Your task to perform on an android device: Open maps Image 0: 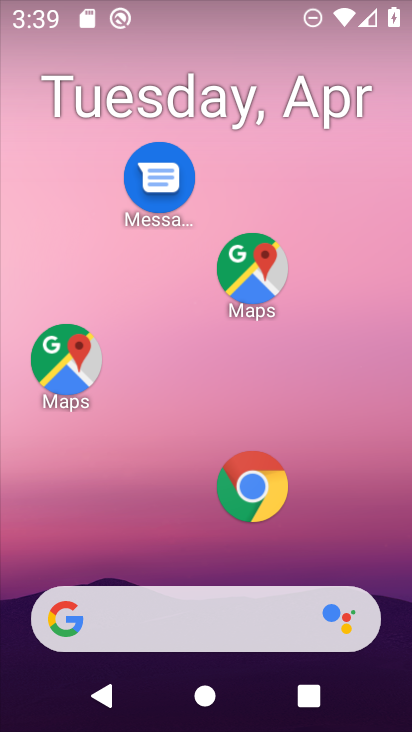
Step 0: click (90, 368)
Your task to perform on an android device: Open maps Image 1: 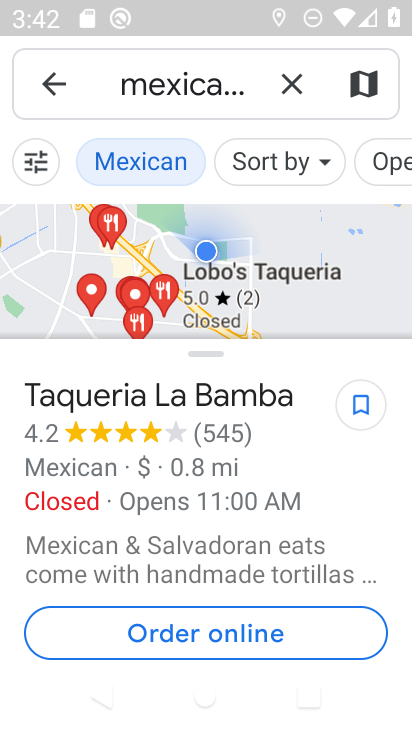
Step 1: task complete